Your task to perform on an android device: turn off location Image 0: 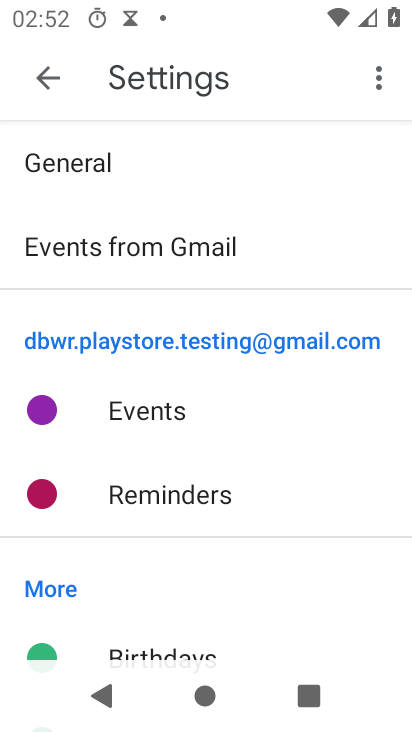
Step 0: press home button
Your task to perform on an android device: turn off location Image 1: 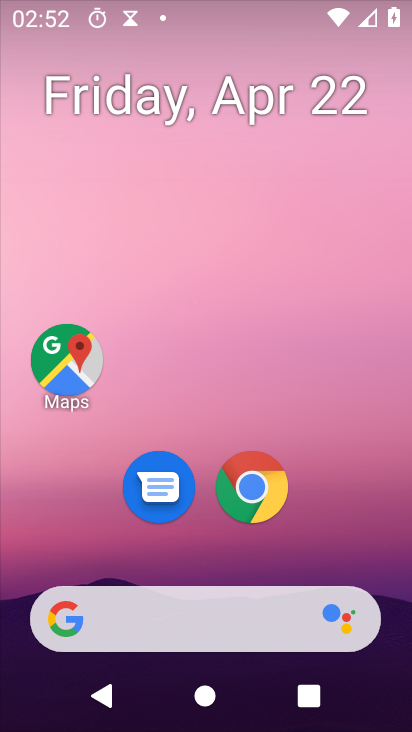
Step 1: drag from (161, 629) to (286, 233)
Your task to perform on an android device: turn off location Image 2: 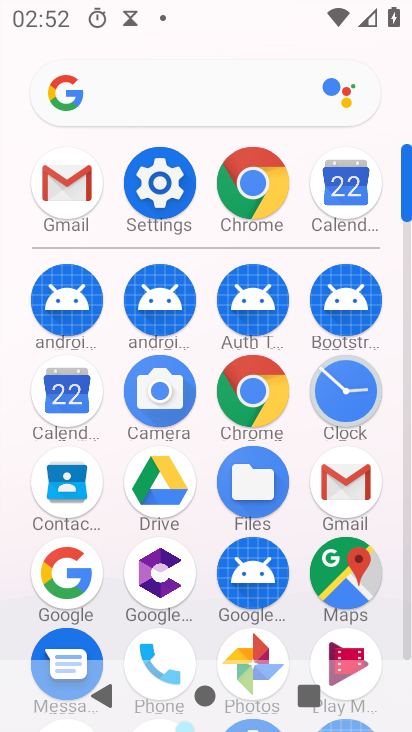
Step 2: click (166, 188)
Your task to perform on an android device: turn off location Image 3: 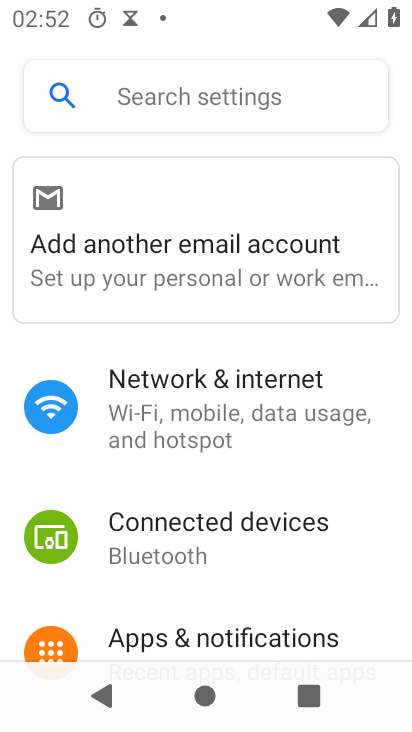
Step 3: drag from (200, 554) to (244, 287)
Your task to perform on an android device: turn off location Image 4: 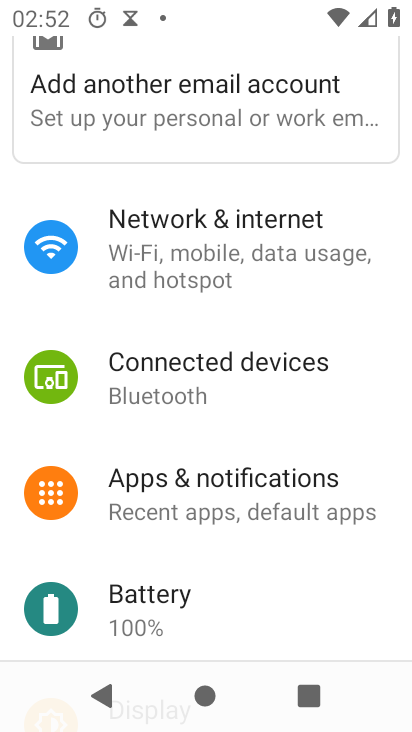
Step 4: drag from (152, 554) to (258, 248)
Your task to perform on an android device: turn off location Image 5: 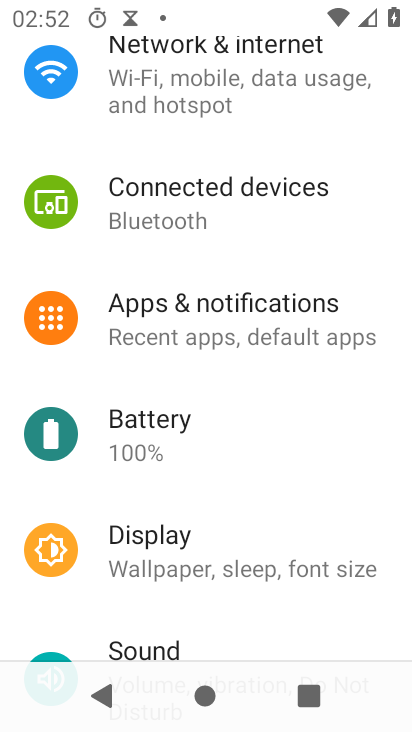
Step 5: drag from (208, 541) to (332, 259)
Your task to perform on an android device: turn off location Image 6: 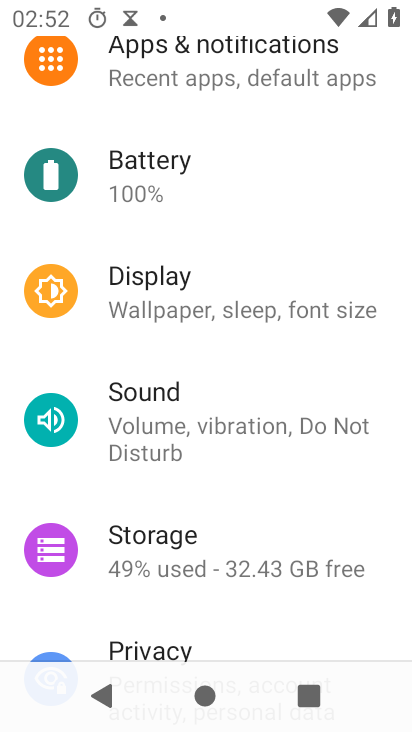
Step 6: drag from (232, 528) to (349, 169)
Your task to perform on an android device: turn off location Image 7: 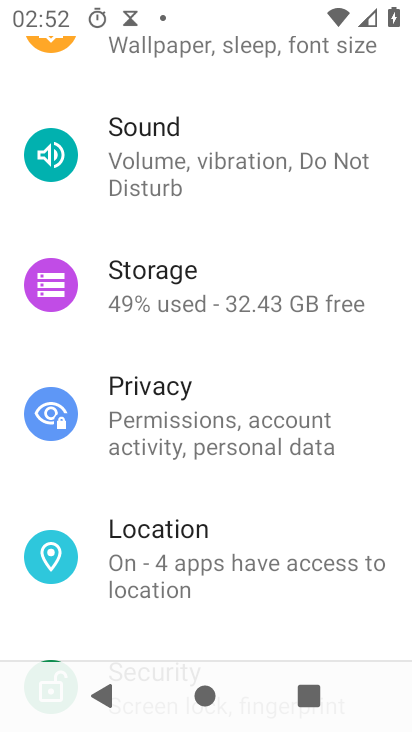
Step 7: click (194, 545)
Your task to perform on an android device: turn off location Image 8: 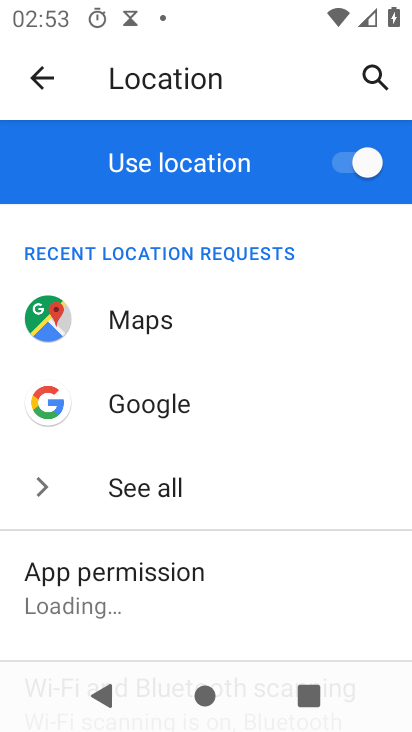
Step 8: click (339, 160)
Your task to perform on an android device: turn off location Image 9: 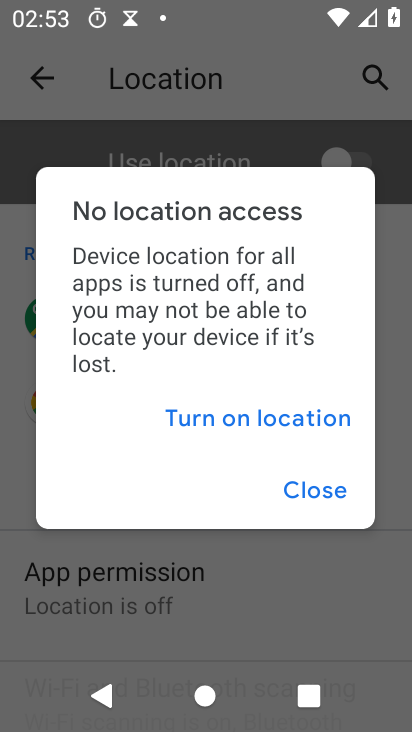
Step 9: task complete